Your task to perform on an android device: open a new tab in the chrome app Image 0: 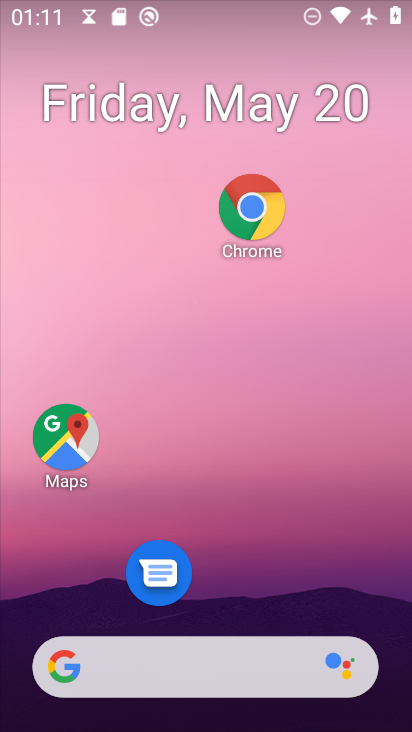
Step 0: click (255, 217)
Your task to perform on an android device: open a new tab in the chrome app Image 1: 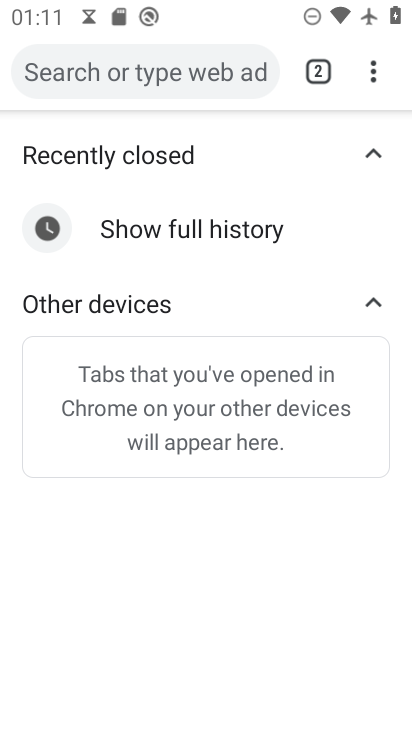
Step 1: click (374, 68)
Your task to perform on an android device: open a new tab in the chrome app Image 2: 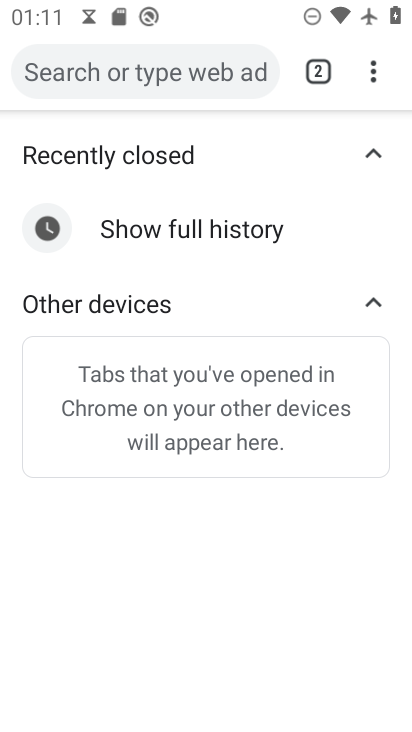
Step 2: click (370, 74)
Your task to perform on an android device: open a new tab in the chrome app Image 3: 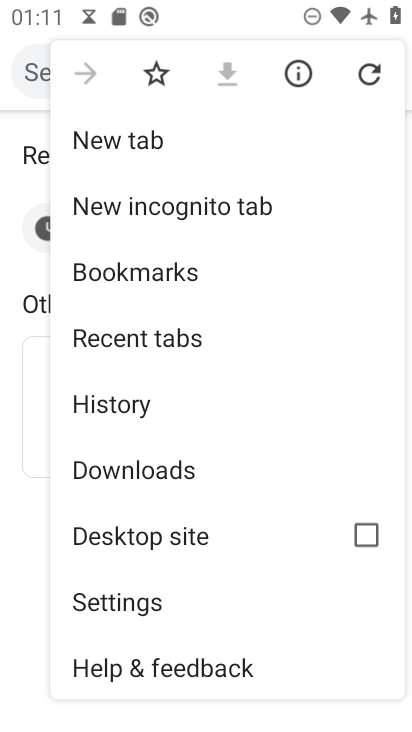
Step 3: click (210, 150)
Your task to perform on an android device: open a new tab in the chrome app Image 4: 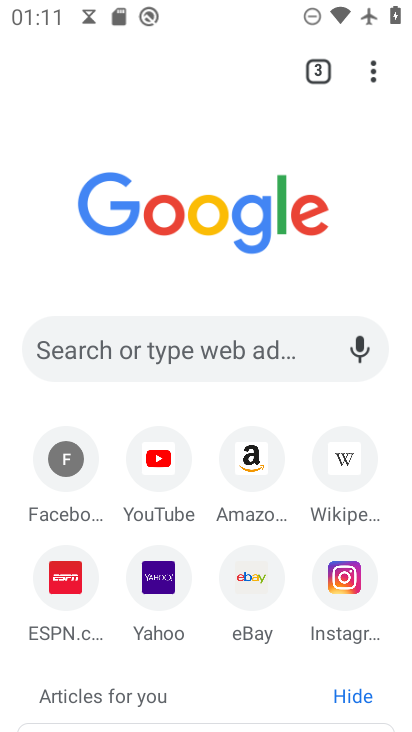
Step 4: task complete